Your task to perform on an android device: Go to battery settings Image 0: 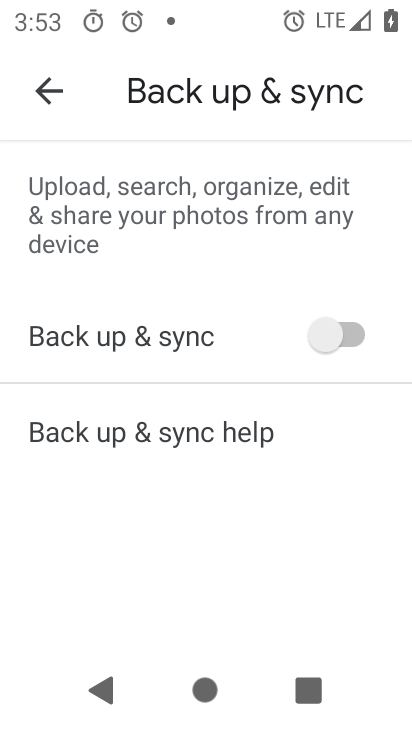
Step 0: press home button
Your task to perform on an android device: Go to battery settings Image 1: 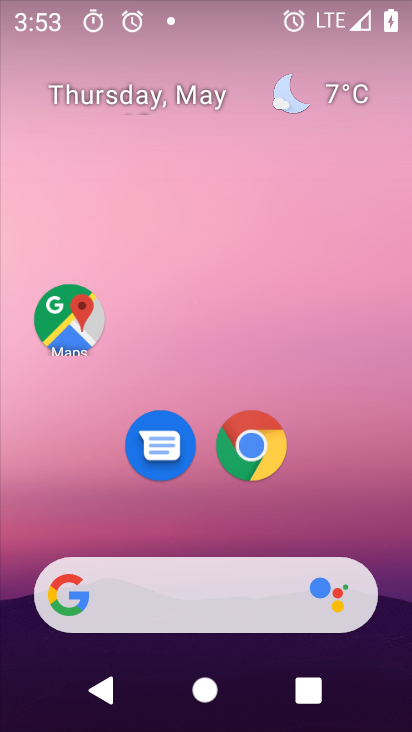
Step 1: drag from (368, 526) to (386, 8)
Your task to perform on an android device: Go to battery settings Image 2: 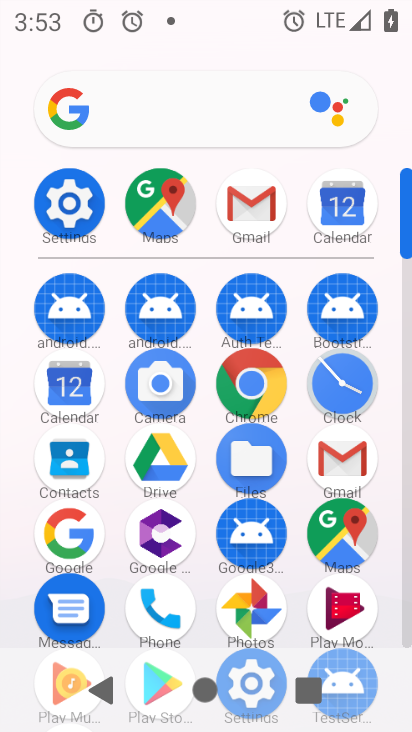
Step 2: click (71, 195)
Your task to perform on an android device: Go to battery settings Image 3: 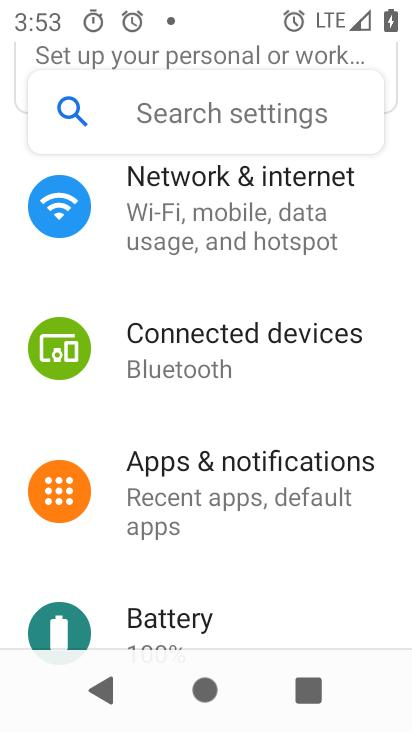
Step 3: click (144, 619)
Your task to perform on an android device: Go to battery settings Image 4: 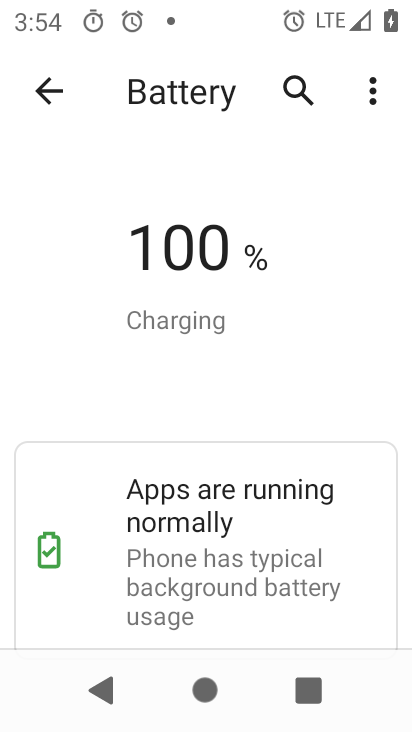
Step 4: task complete